Your task to perform on an android device: open a new tab in the chrome app Image 0: 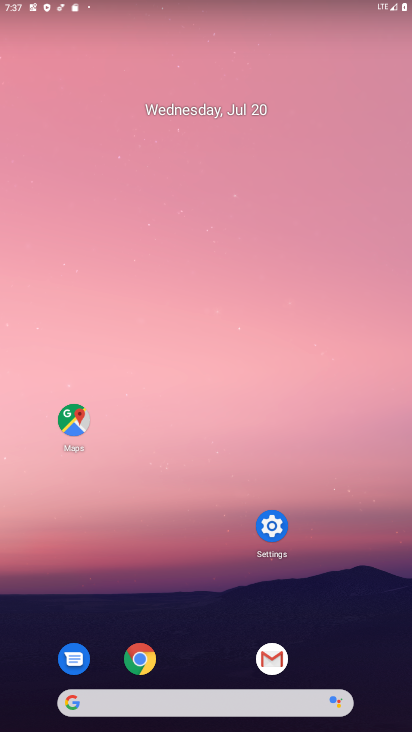
Step 0: click (133, 657)
Your task to perform on an android device: open a new tab in the chrome app Image 1: 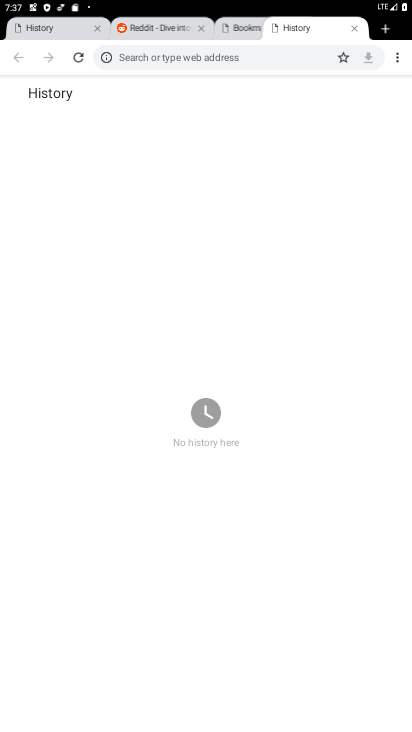
Step 1: click (378, 30)
Your task to perform on an android device: open a new tab in the chrome app Image 2: 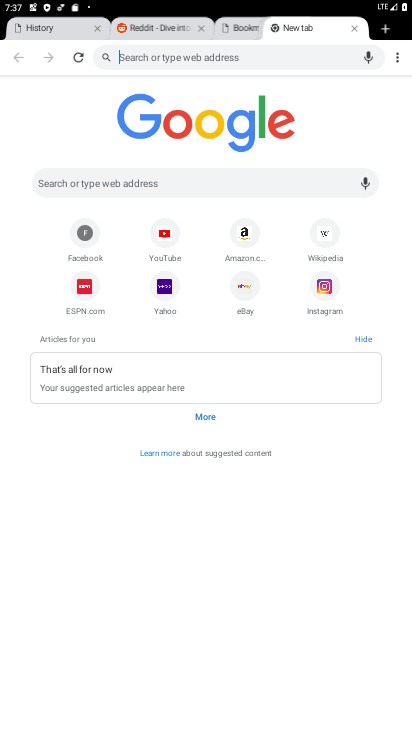
Step 2: task complete